Your task to perform on an android device: Open settings Image 0: 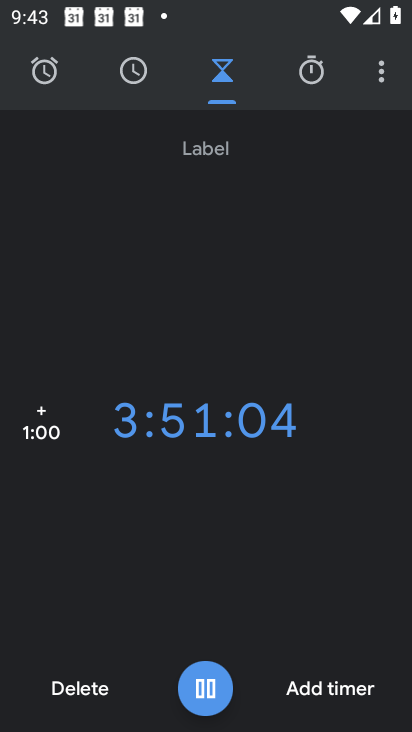
Step 0: press home button
Your task to perform on an android device: Open settings Image 1: 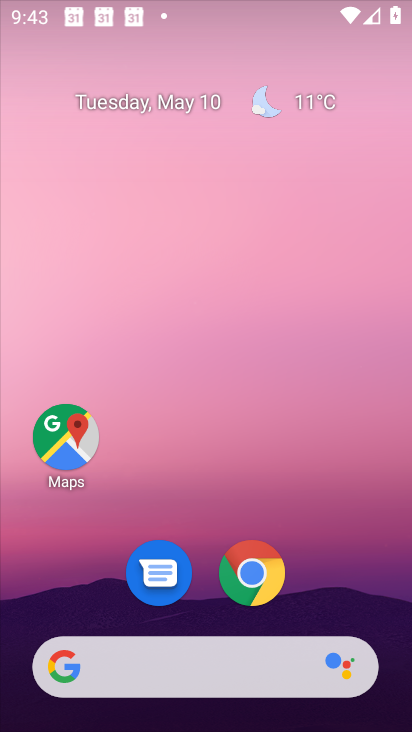
Step 1: drag from (311, 500) to (329, 138)
Your task to perform on an android device: Open settings Image 2: 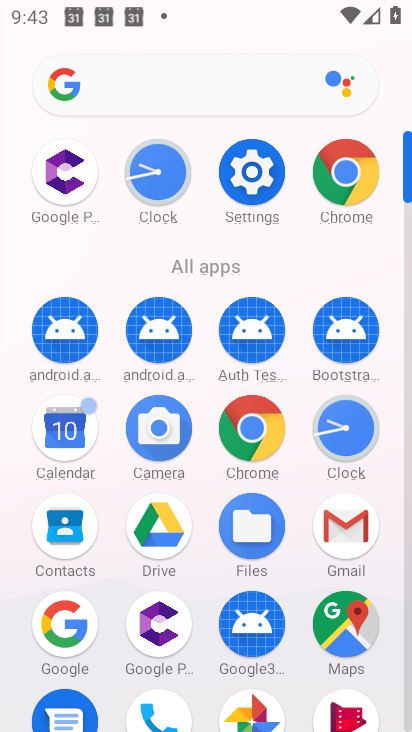
Step 2: click (241, 191)
Your task to perform on an android device: Open settings Image 3: 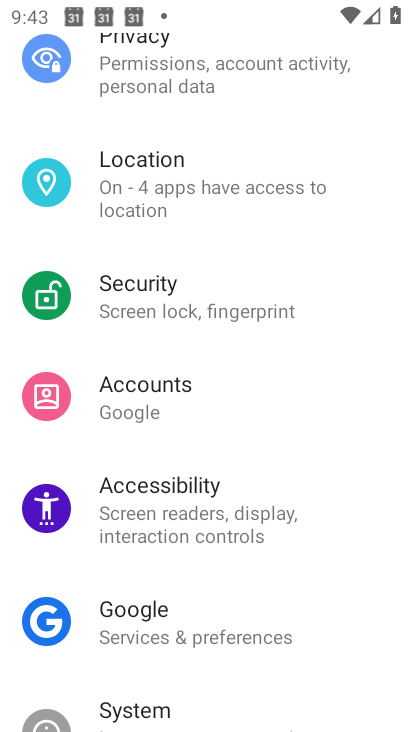
Step 3: task complete